Your task to perform on an android device: turn on airplane mode Image 0: 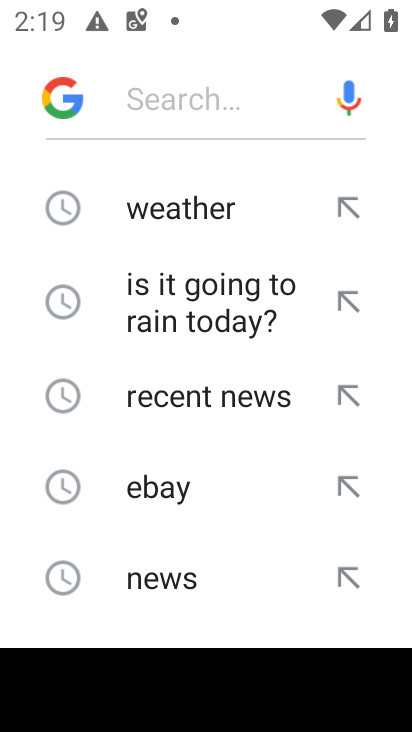
Step 0: press back button
Your task to perform on an android device: turn on airplane mode Image 1: 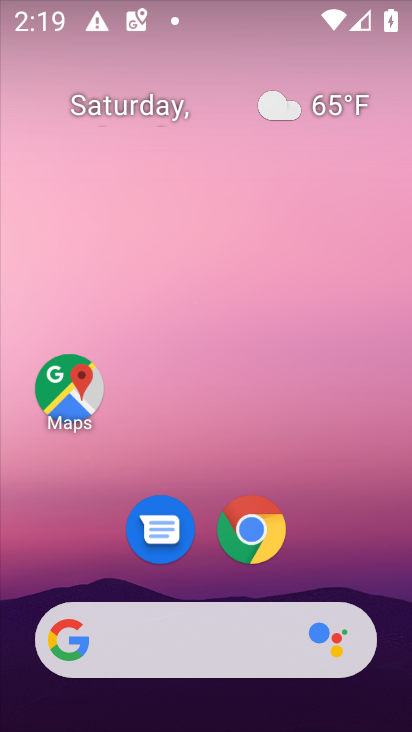
Step 1: drag from (380, 570) to (201, 40)
Your task to perform on an android device: turn on airplane mode Image 2: 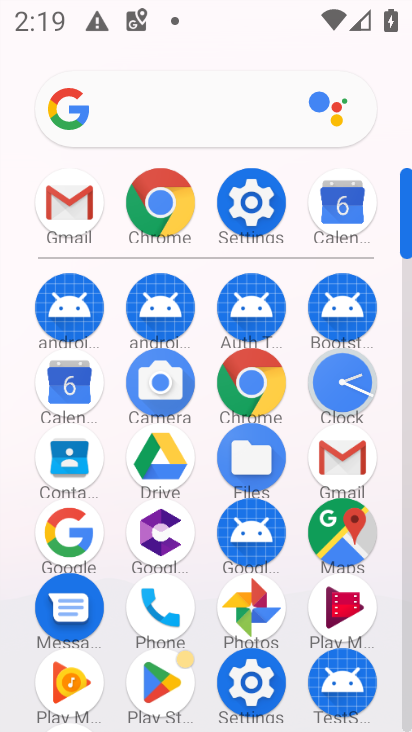
Step 2: click (239, 208)
Your task to perform on an android device: turn on airplane mode Image 3: 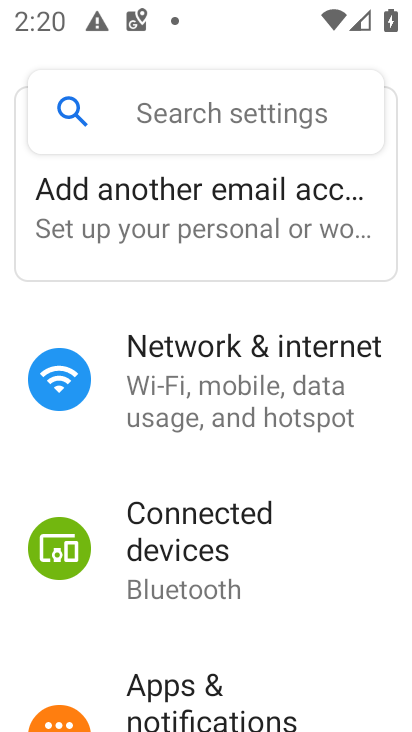
Step 3: click (310, 367)
Your task to perform on an android device: turn on airplane mode Image 4: 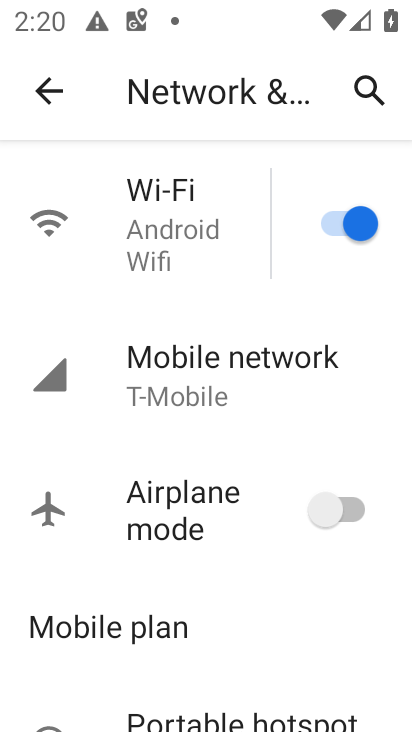
Step 4: click (341, 513)
Your task to perform on an android device: turn on airplane mode Image 5: 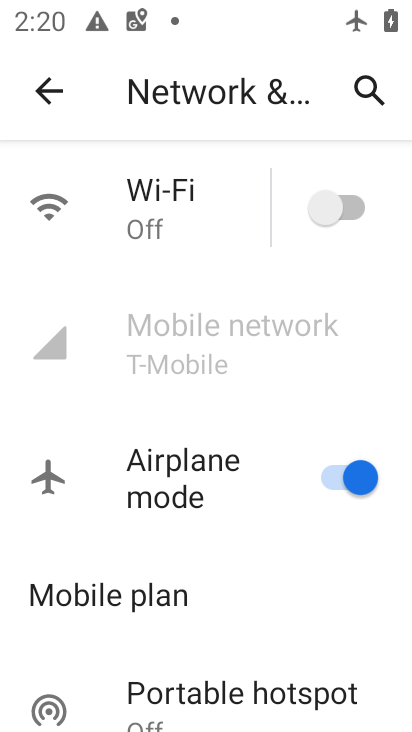
Step 5: task complete